Your task to perform on an android device: stop showing notifications on the lock screen Image 0: 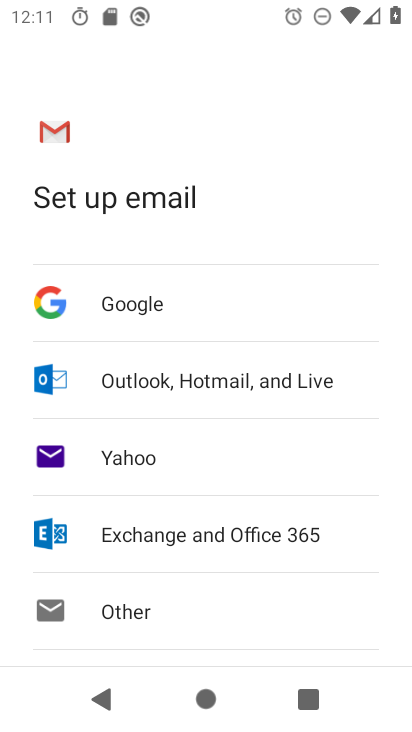
Step 0: press home button
Your task to perform on an android device: stop showing notifications on the lock screen Image 1: 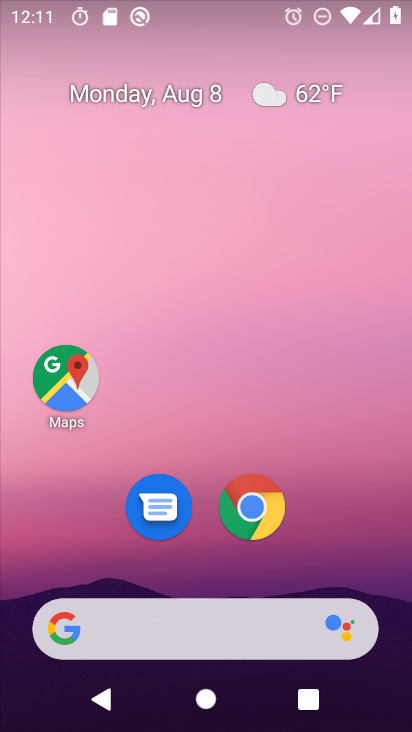
Step 1: drag from (333, 529) to (306, 2)
Your task to perform on an android device: stop showing notifications on the lock screen Image 2: 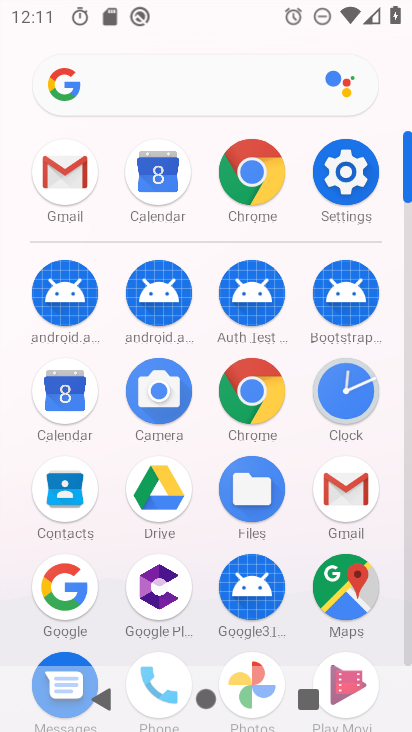
Step 2: click (347, 173)
Your task to perform on an android device: stop showing notifications on the lock screen Image 3: 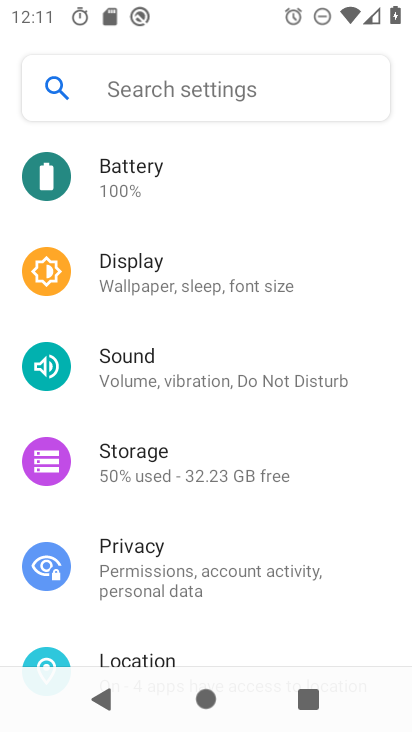
Step 3: drag from (242, 602) to (280, 237)
Your task to perform on an android device: stop showing notifications on the lock screen Image 4: 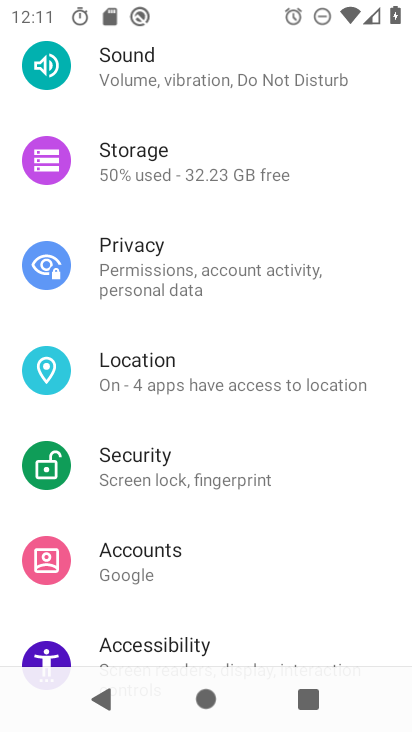
Step 4: drag from (230, 126) to (226, 614)
Your task to perform on an android device: stop showing notifications on the lock screen Image 5: 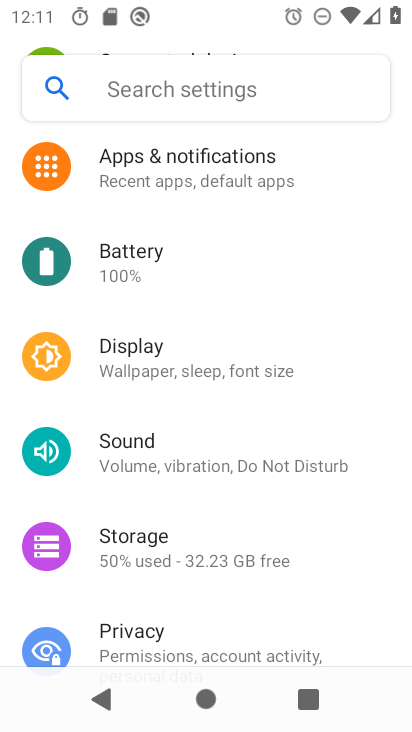
Step 5: click (211, 179)
Your task to perform on an android device: stop showing notifications on the lock screen Image 6: 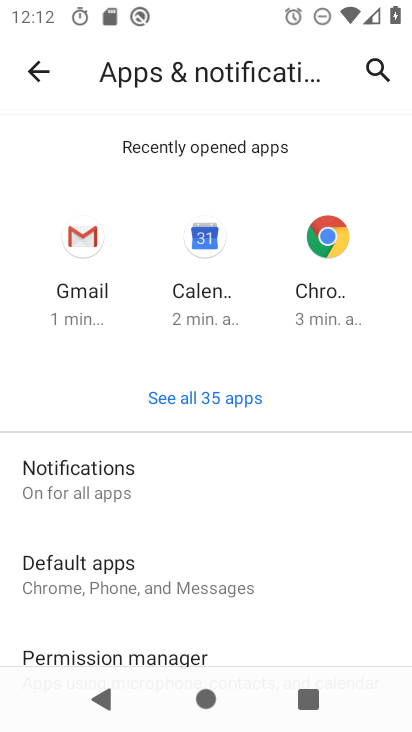
Step 6: click (74, 489)
Your task to perform on an android device: stop showing notifications on the lock screen Image 7: 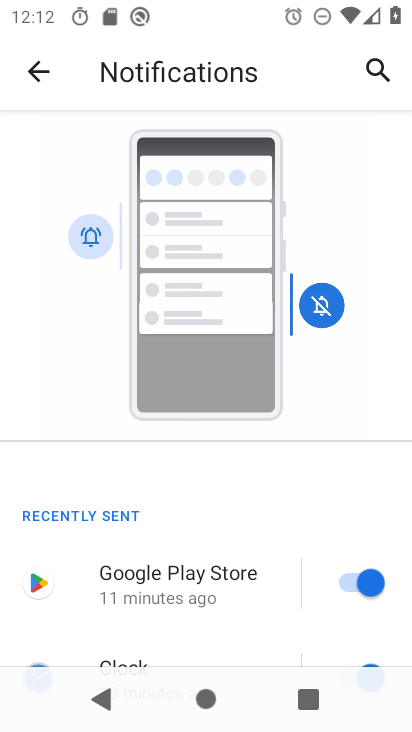
Step 7: drag from (184, 534) to (288, 131)
Your task to perform on an android device: stop showing notifications on the lock screen Image 8: 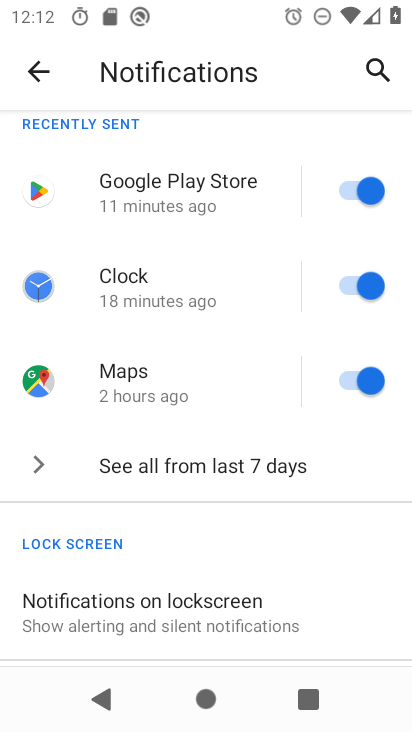
Step 8: click (200, 603)
Your task to perform on an android device: stop showing notifications on the lock screen Image 9: 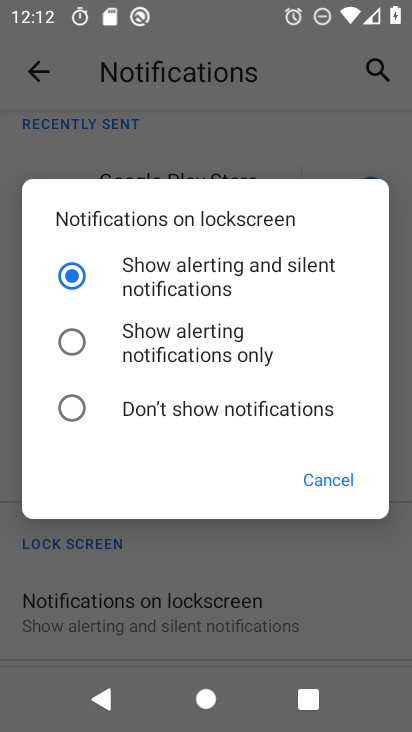
Step 9: click (226, 392)
Your task to perform on an android device: stop showing notifications on the lock screen Image 10: 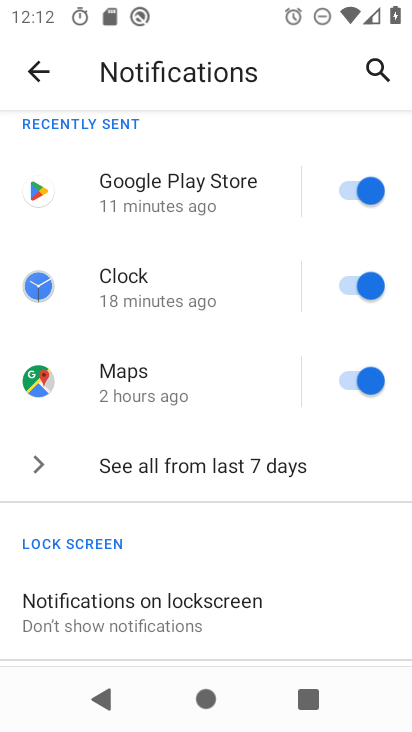
Step 10: task complete